Your task to perform on an android device: Open Google Chrome Image 0: 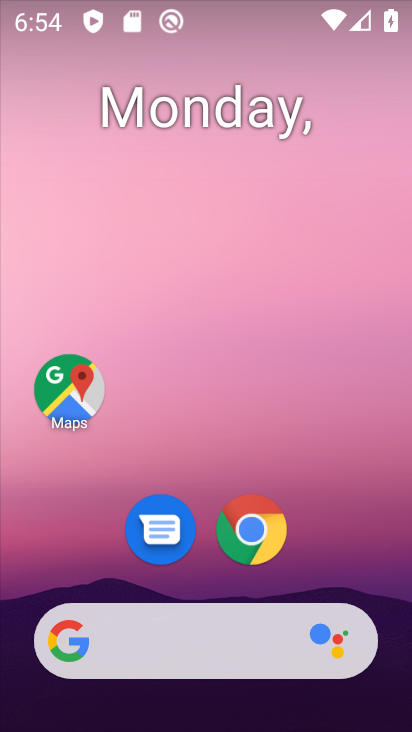
Step 0: click (257, 532)
Your task to perform on an android device: Open Google Chrome Image 1: 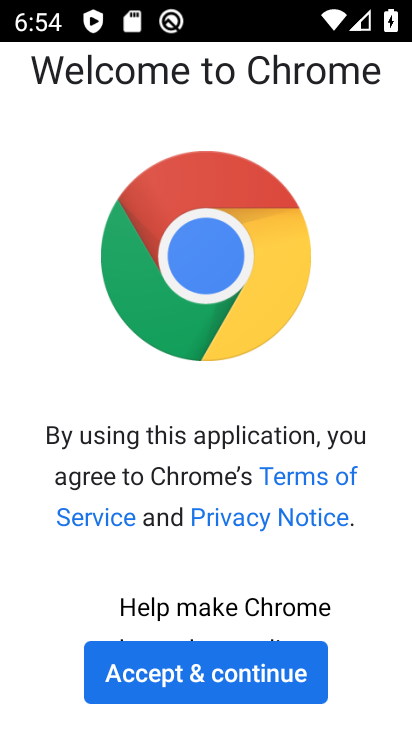
Step 1: click (219, 670)
Your task to perform on an android device: Open Google Chrome Image 2: 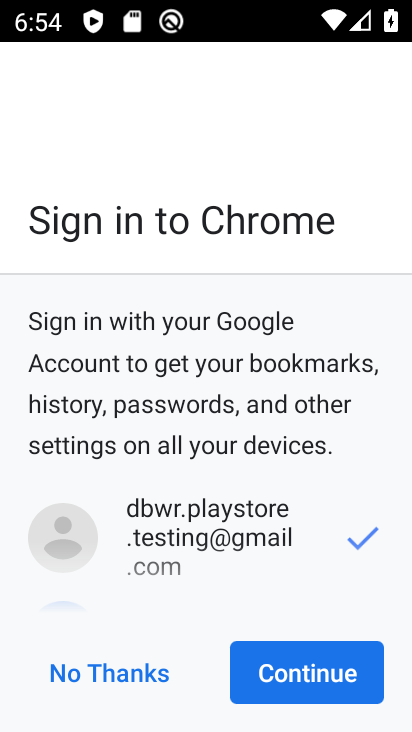
Step 2: click (283, 670)
Your task to perform on an android device: Open Google Chrome Image 3: 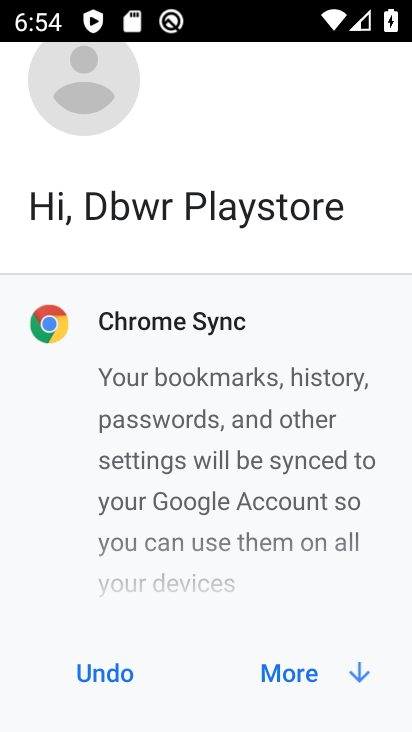
Step 3: click (283, 670)
Your task to perform on an android device: Open Google Chrome Image 4: 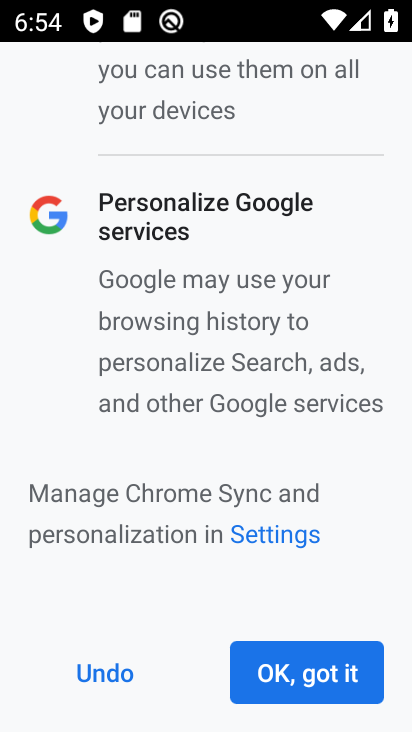
Step 4: click (309, 670)
Your task to perform on an android device: Open Google Chrome Image 5: 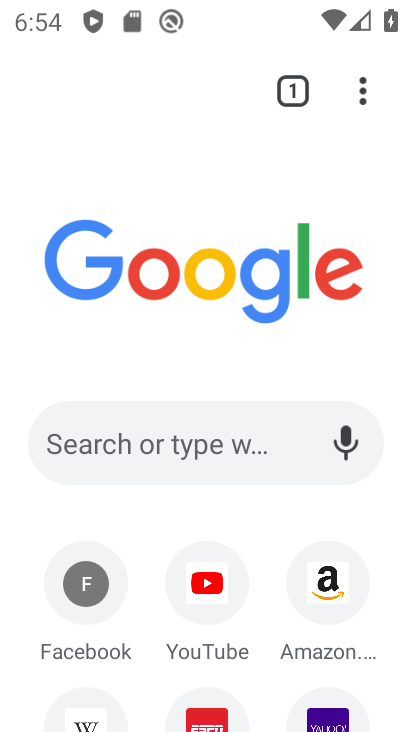
Step 5: task complete